Your task to perform on an android device: Open Wikipedia Image 0: 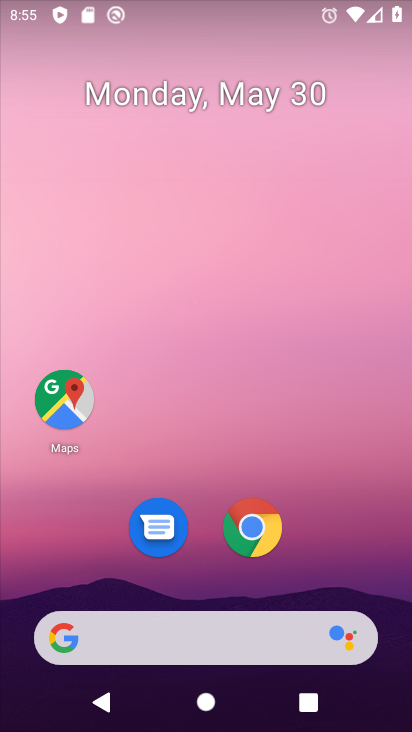
Step 0: drag from (294, 613) to (359, 250)
Your task to perform on an android device: Open Wikipedia Image 1: 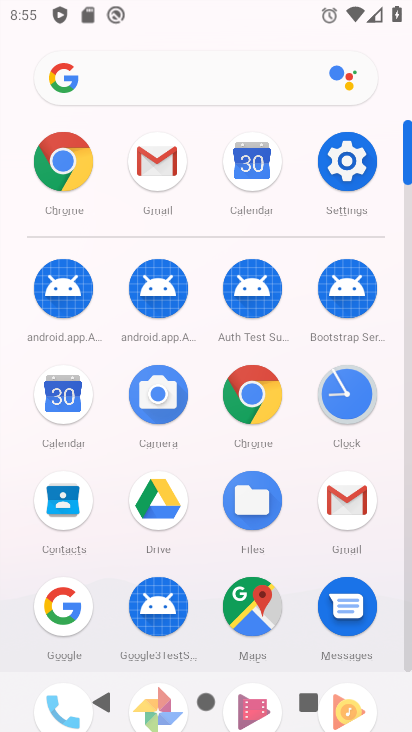
Step 1: click (253, 379)
Your task to perform on an android device: Open Wikipedia Image 2: 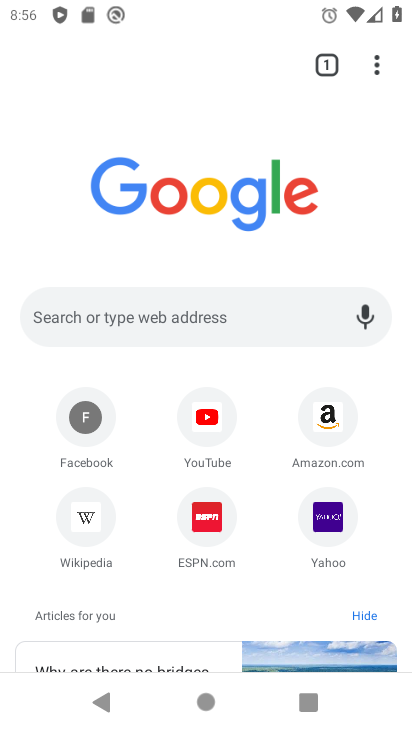
Step 2: click (105, 528)
Your task to perform on an android device: Open Wikipedia Image 3: 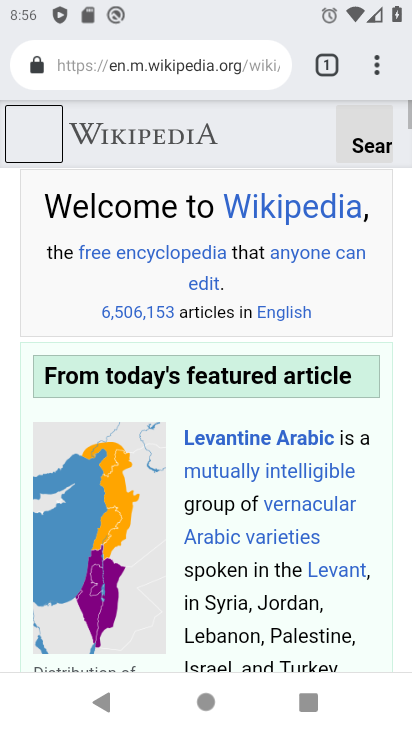
Step 3: task complete